Your task to perform on an android device: toggle javascript in the chrome app Image 0: 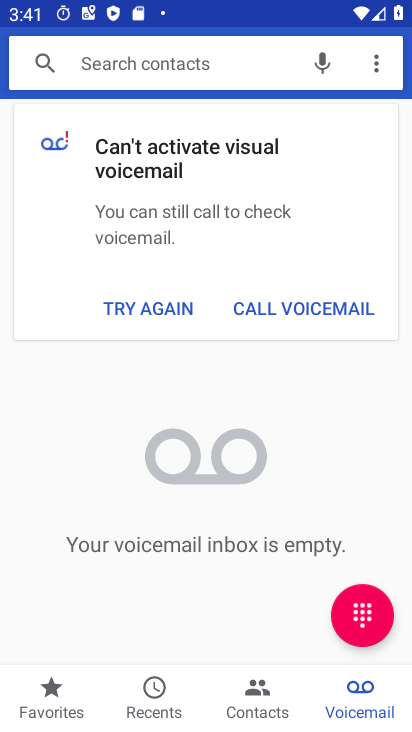
Step 0: press home button
Your task to perform on an android device: toggle javascript in the chrome app Image 1: 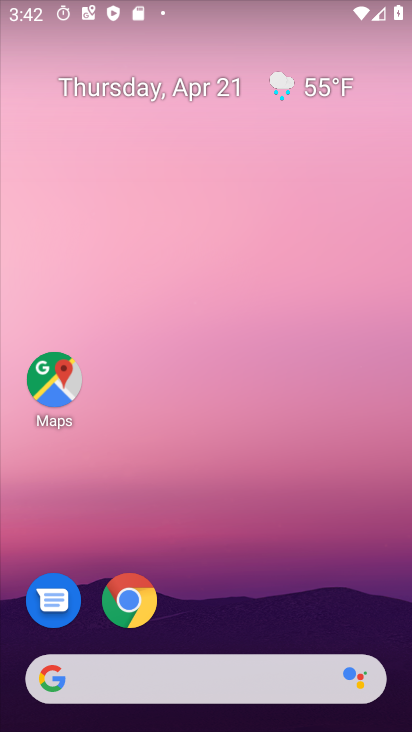
Step 1: drag from (115, 644) to (260, 92)
Your task to perform on an android device: toggle javascript in the chrome app Image 2: 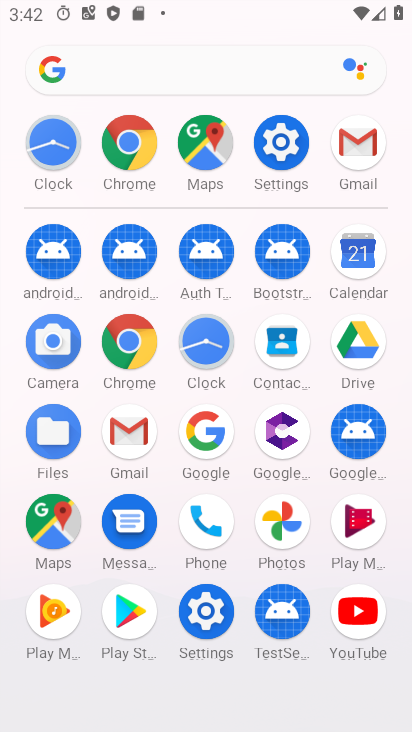
Step 2: click (132, 152)
Your task to perform on an android device: toggle javascript in the chrome app Image 3: 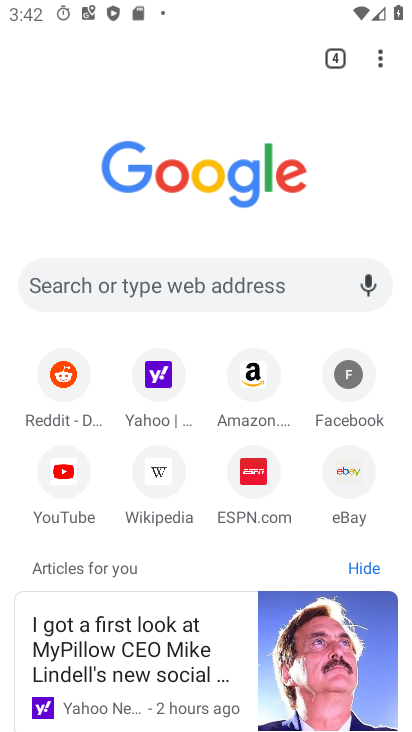
Step 3: click (368, 64)
Your task to perform on an android device: toggle javascript in the chrome app Image 4: 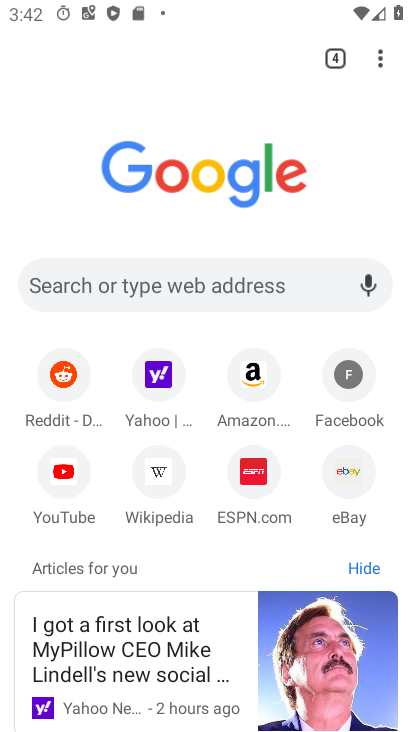
Step 4: click (367, 65)
Your task to perform on an android device: toggle javascript in the chrome app Image 5: 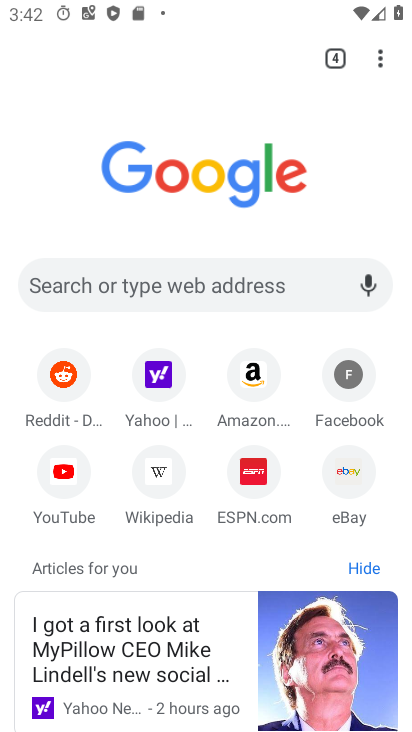
Step 5: click (367, 67)
Your task to perform on an android device: toggle javascript in the chrome app Image 6: 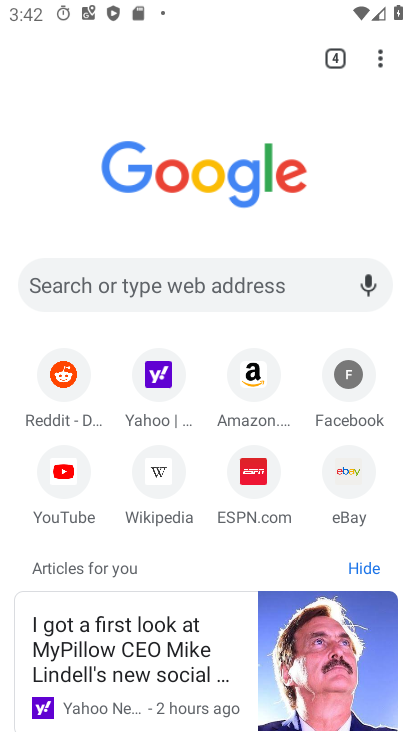
Step 6: click (373, 69)
Your task to perform on an android device: toggle javascript in the chrome app Image 7: 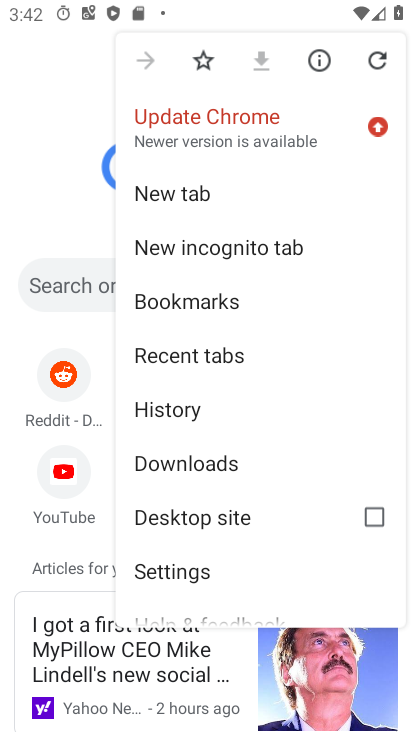
Step 7: click (189, 577)
Your task to perform on an android device: toggle javascript in the chrome app Image 8: 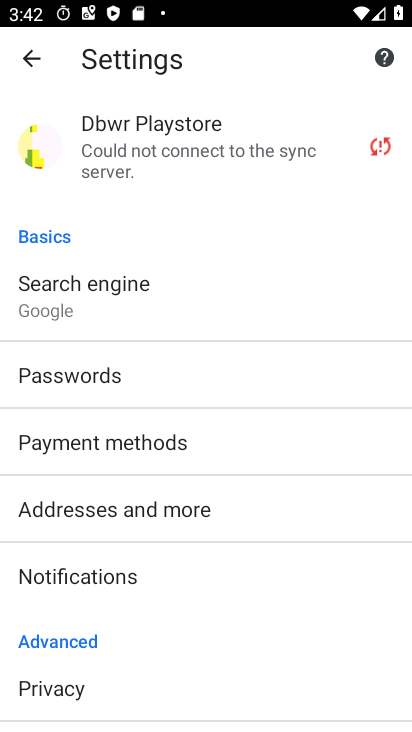
Step 8: drag from (155, 618) to (312, 293)
Your task to perform on an android device: toggle javascript in the chrome app Image 9: 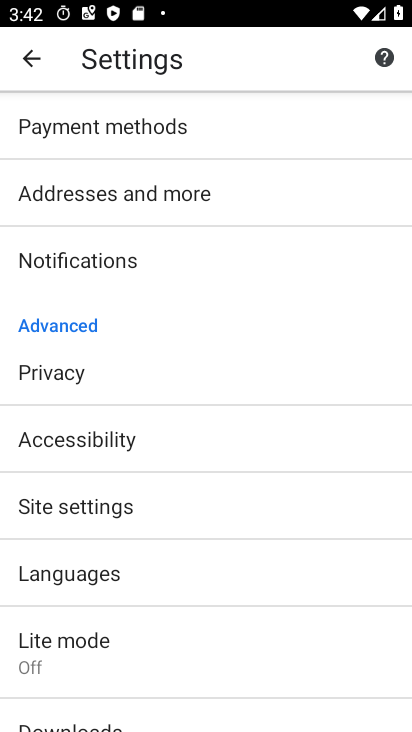
Step 9: click (53, 510)
Your task to perform on an android device: toggle javascript in the chrome app Image 10: 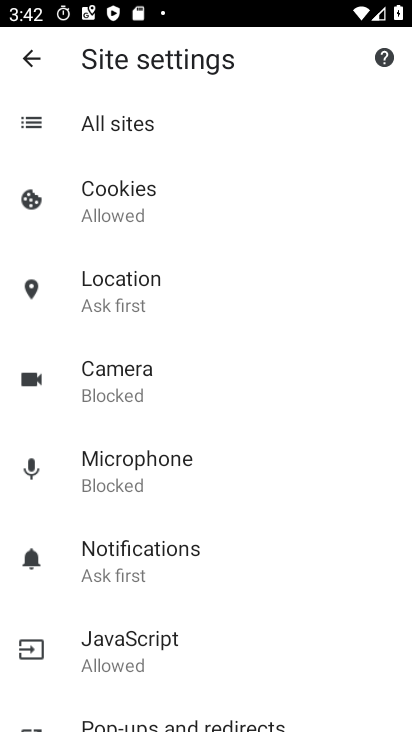
Step 10: click (152, 650)
Your task to perform on an android device: toggle javascript in the chrome app Image 11: 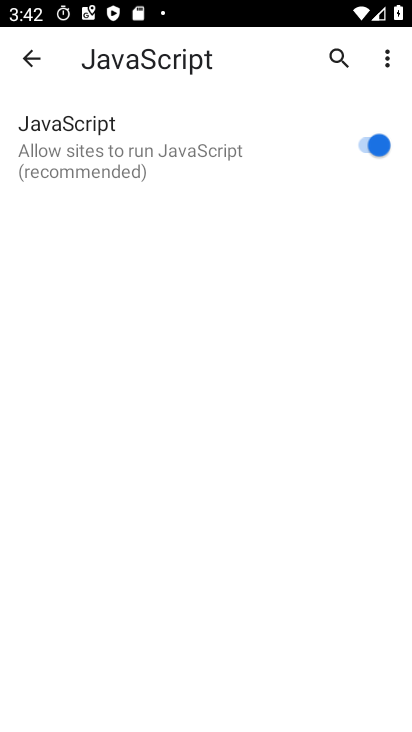
Step 11: click (368, 147)
Your task to perform on an android device: toggle javascript in the chrome app Image 12: 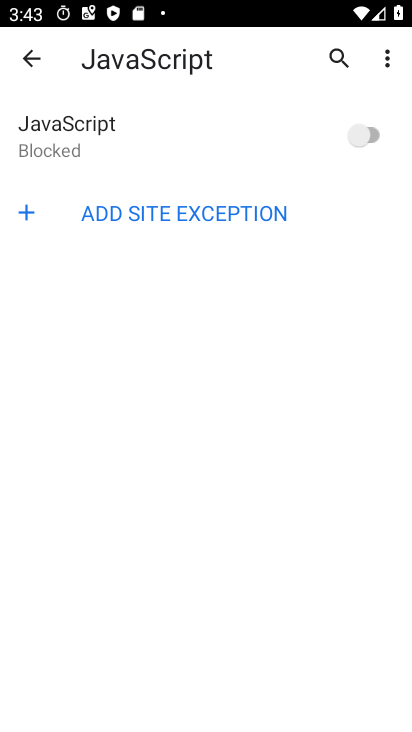
Step 12: task complete